Your task to perform on an android device: Show the shopping cart on walmart. Search for "apple airpods pro" on walmart, select the first entry, add it to the cart, then select checkout. Image 0: 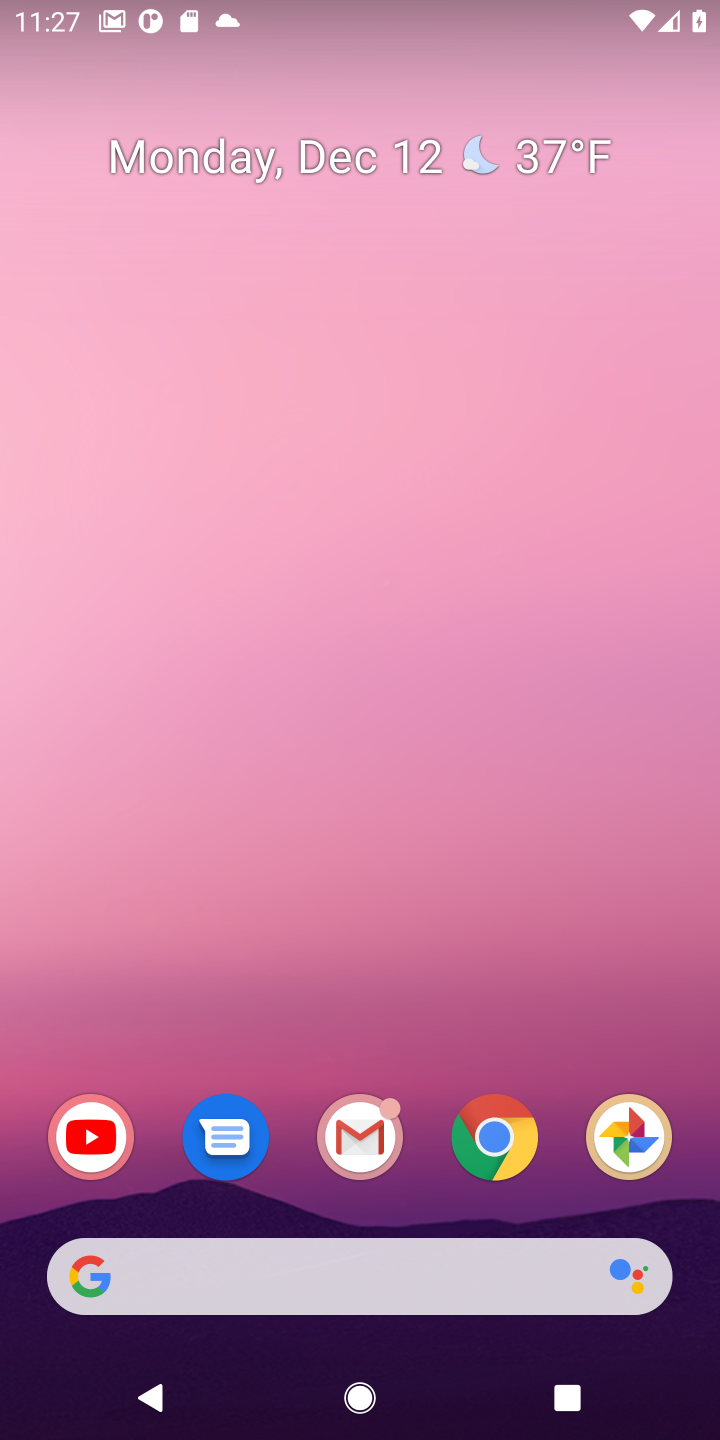
Step 0: click (386, 1311)
Your task to perform on an android device: Show the shopping cart on walmart. Search for "apple airpods pro" on walmart, select the first entry, add it to the cart, then select checkout. Image 1: 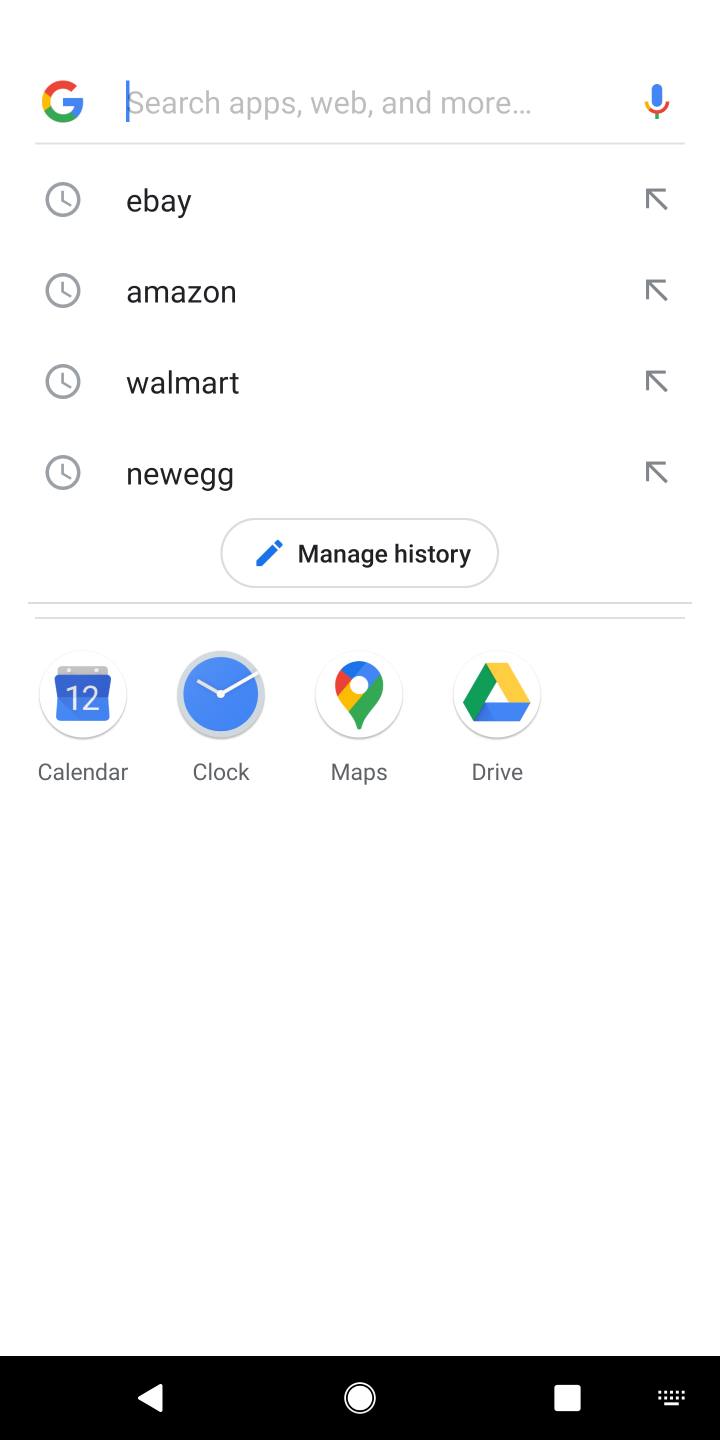
Step 1: click (237, 396)
Your task to perform on an android device: Show the shopping cart on walmart. Search for "apple airpods pro" on walmart, select the first entry, add it to the cart, then select checkout. Image 2: 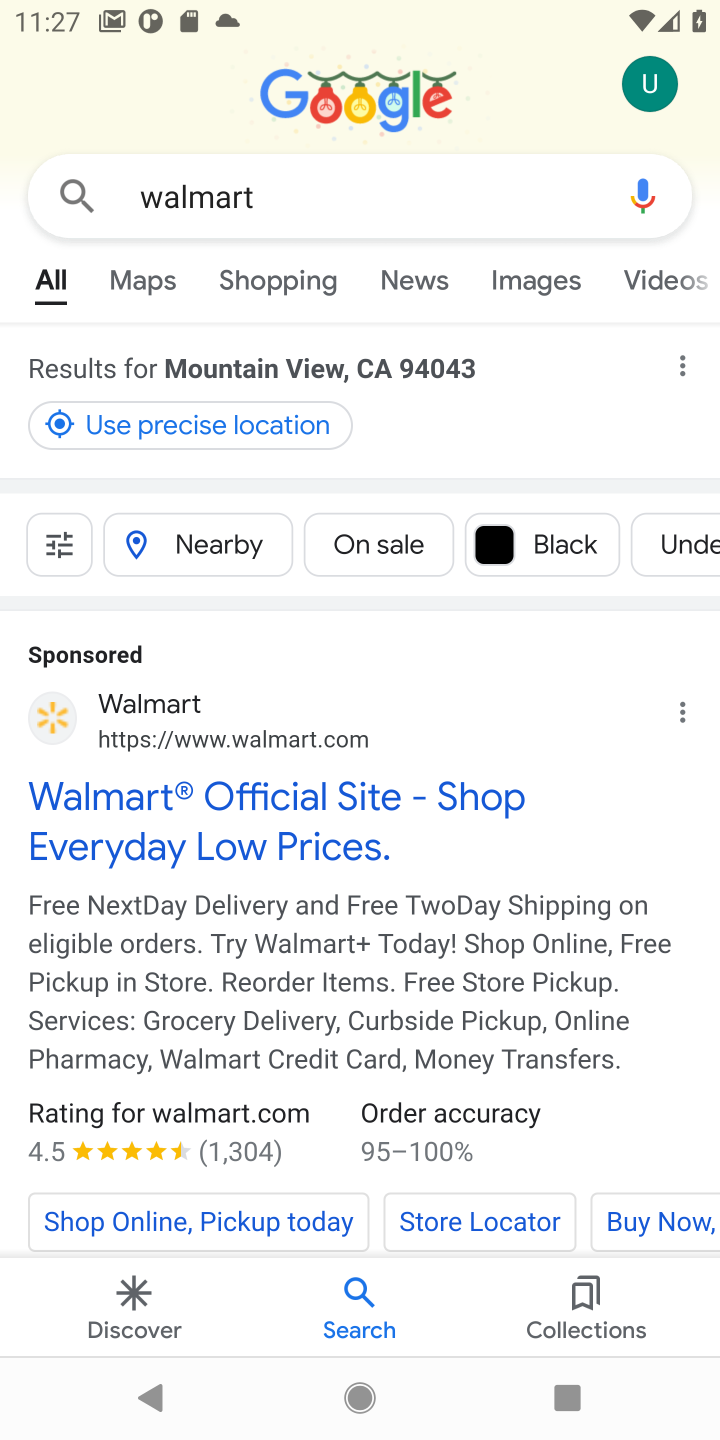
Step 2: click (223, 830)
Your task to perform on an android device: Show the shopping cart on walmart. Search for "apple airpods pro" on walmart, select the first entry, add it to the cart, then select checkout. Image 3: 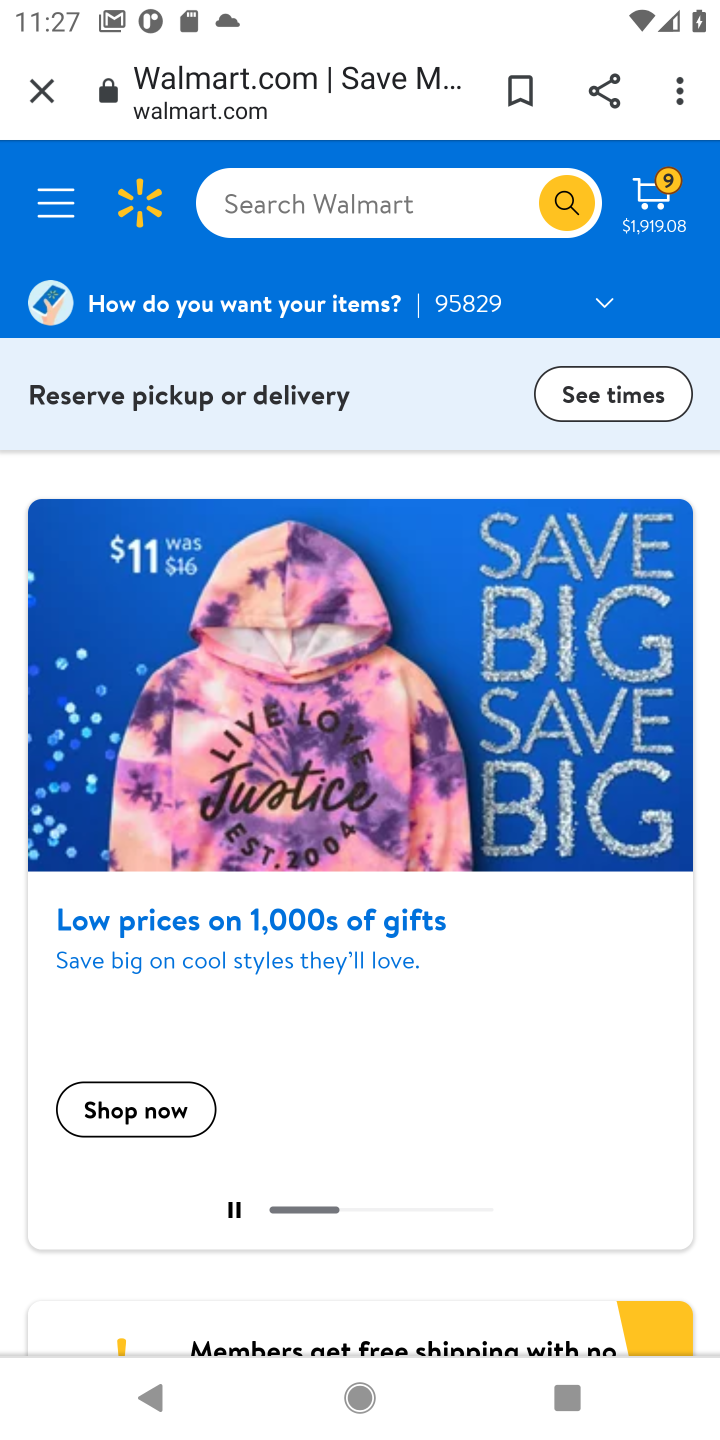
Step 3: click (305, 213)
Your task to perform on an android device: Show the shopping cart on walmart. Search for "apple airpods pro" on walmart, select the first entry, add it to the cart, then select checkout. Image 4: 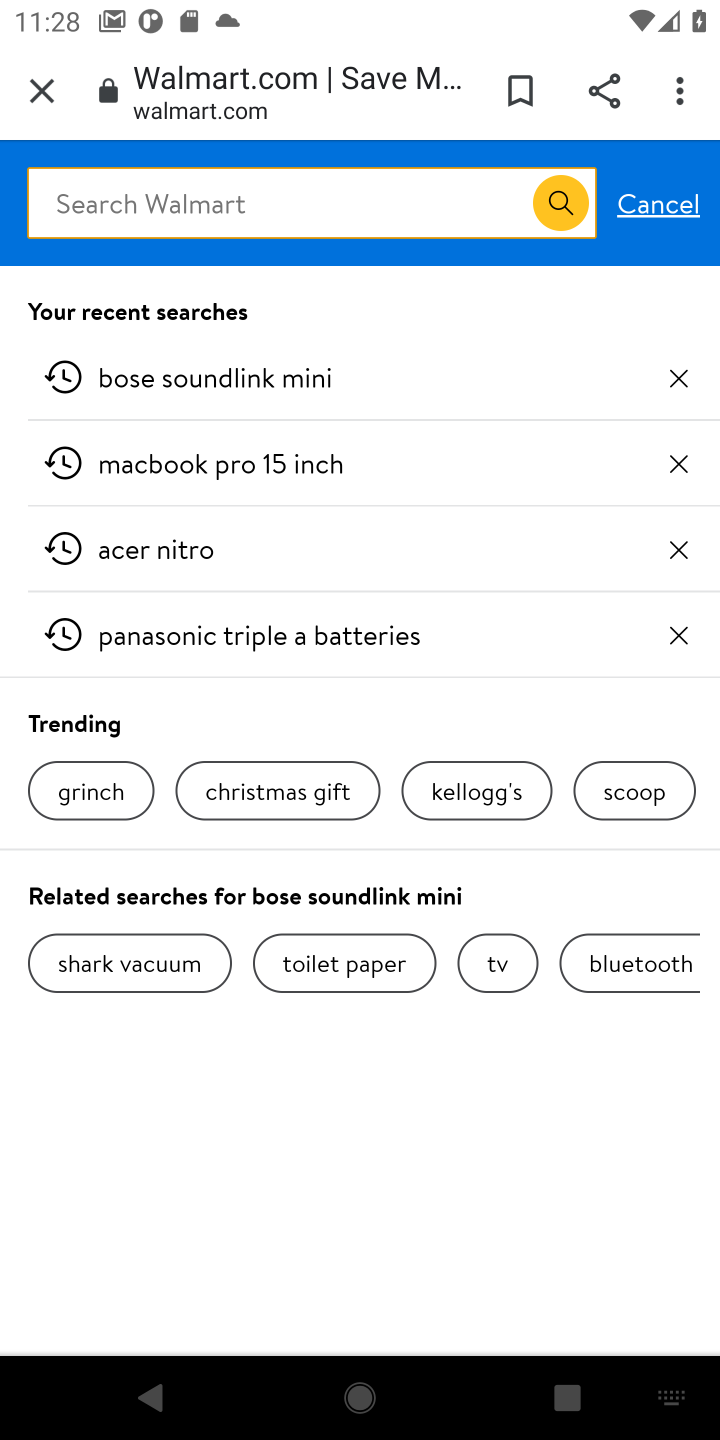
Step 4: type "apple airpods"
Your task to perform on an android device: Show the shopping cart on walmart. Search for "apple airpods pro" on walmart, select the first entry, add it to the cart, then select checkout. Image 5: 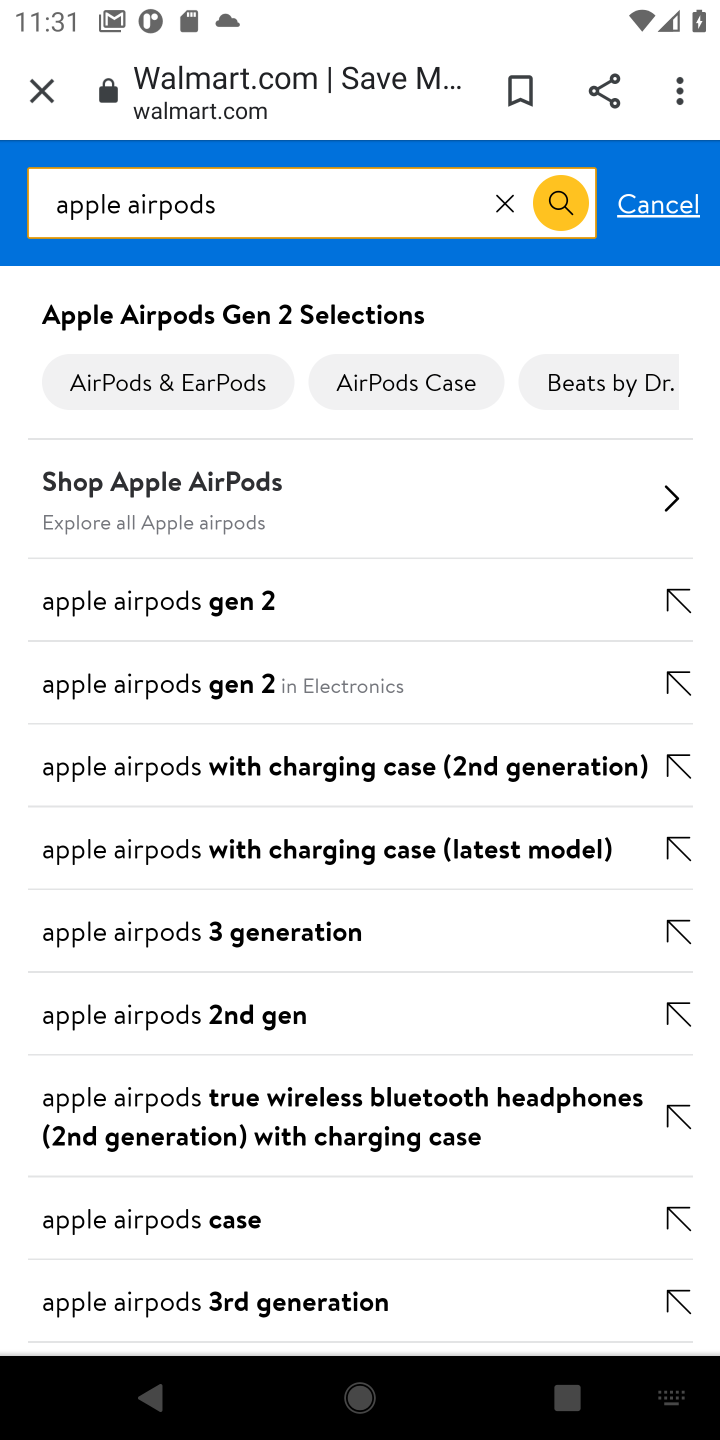
Step 5: click (555, 220)
Your task to perform on an android device: Show the shopping cart on walmart. Search for "apple airpods pro" on walmart, select the first entry, add it to the cart, then select checkout. Image 6: 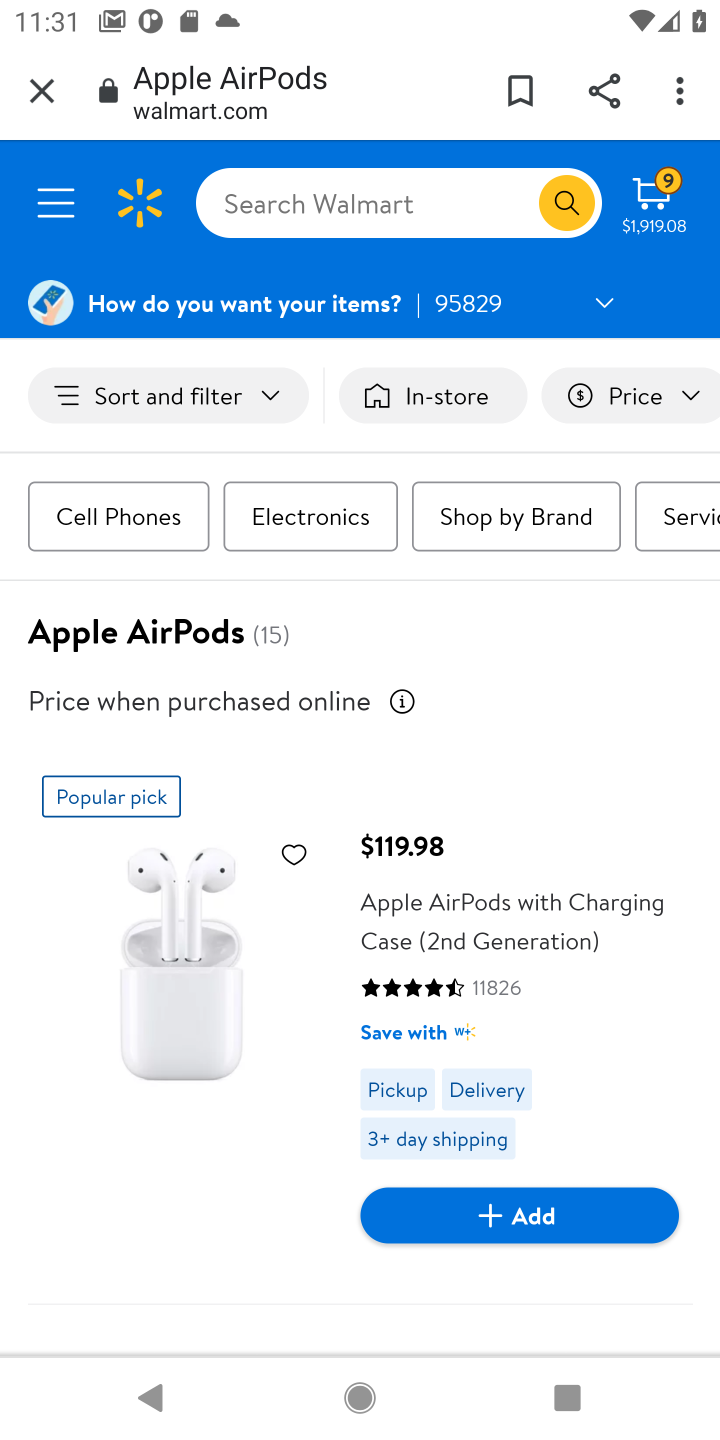
Step 6: click (468, 1199)
Your task to perform on an android device: Show the shopping cart on walmart. Search for "apple airpods pro" on walmart, select the first entry, add it to the cart, then select checkout. Image 7: 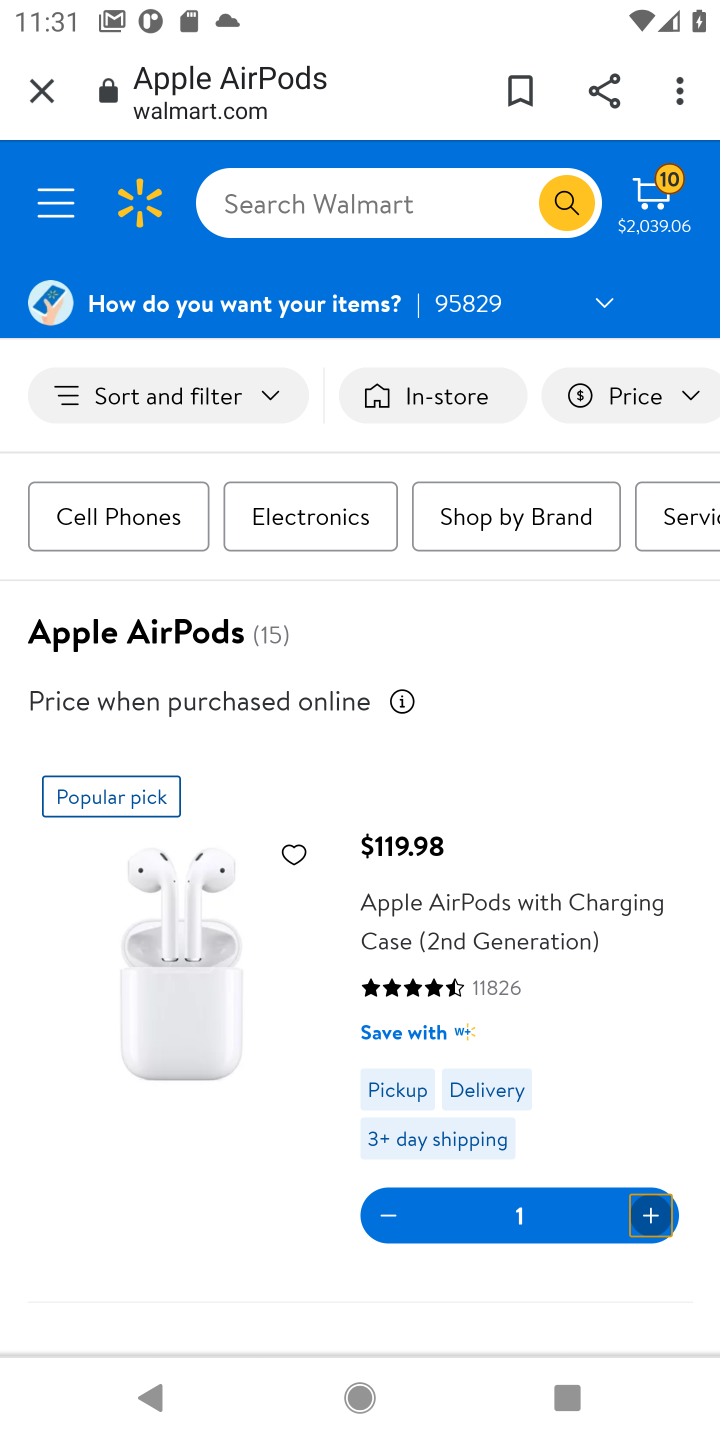
Step 7: task complete